Your task to perform on an android device: choose inbox layout in the gmail app Image 0: 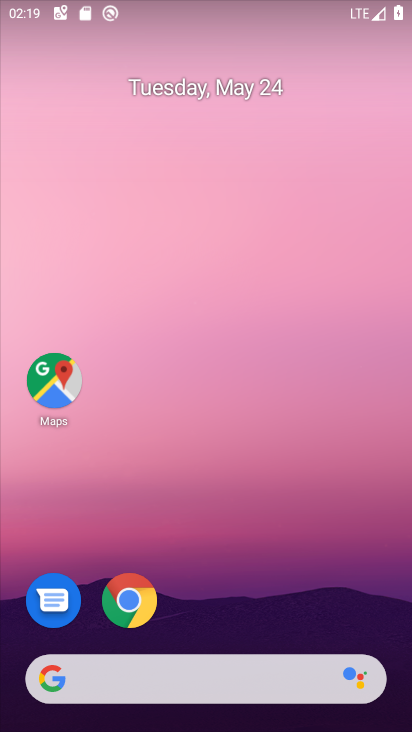
Step 0: drag from (290, 540) to (292, 277)
Your task to perform on an android device: choose inbox layout in the gmail app Image 1: 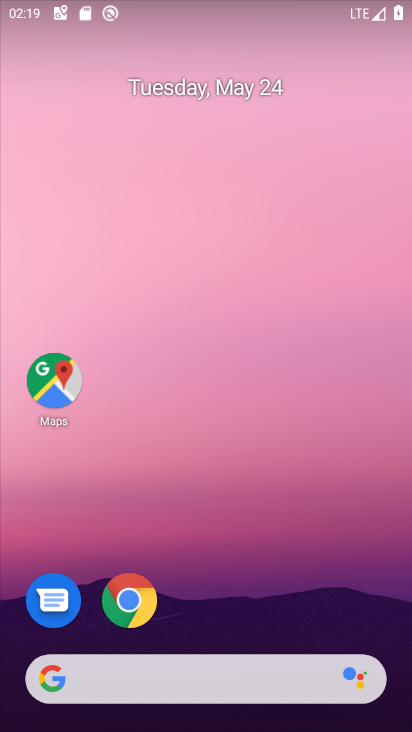
Step 1: drag from (345, 554) to (339, 6)
Your task to perform on an android device: choose inbox layout in the gmail app Image 2: 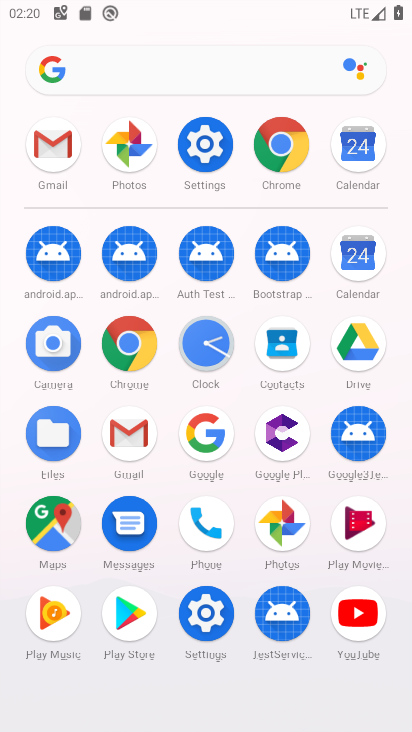
Step 2: click (132, 459)
Your task to perform on an android device: choose inbox layout in the gmail app Image 3: 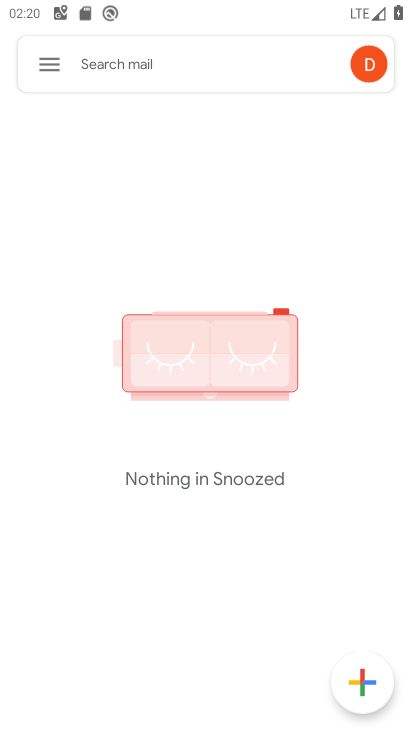
Step 3: click (52, 62)
Your task to perform on an android device: choose inbox layout in the gmail app Image 4: 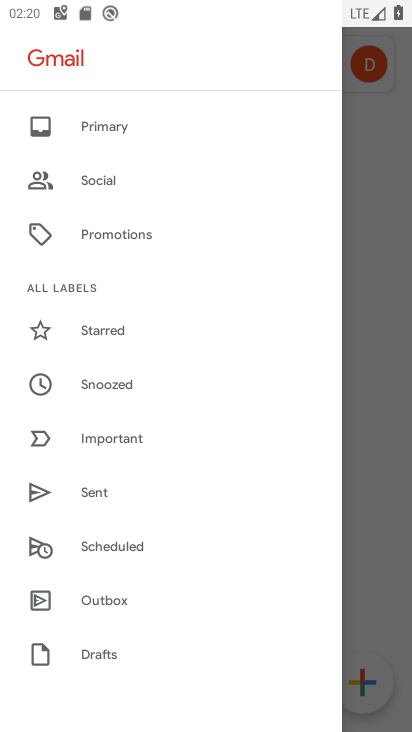
Step 4: drag from (141, 586) to (147, 271)
Your task to perform on an android device: choose inbox layout in the gmail app Image 5: 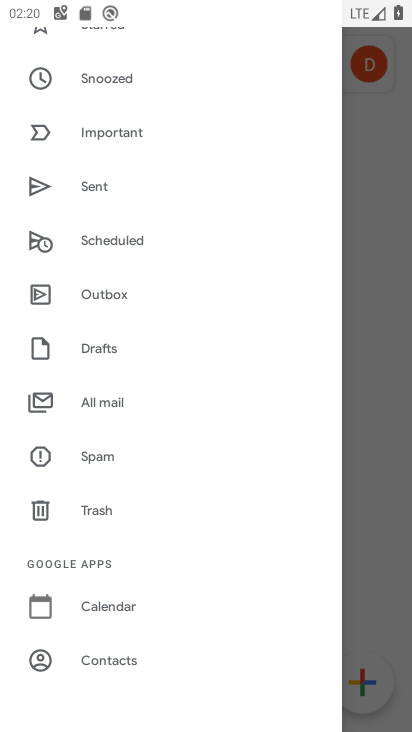
Step 5: drag from (111, 537) to (114, 189)
Your task to perform on an android device: choose inbox layout in the gmail app Image 6: 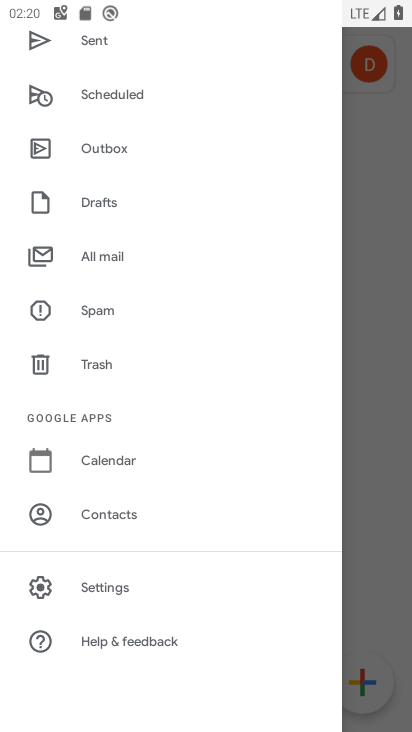
Step 6: drag from (307, 180) to (328, 551)
Your task to perform on an android device: choose inbox layout in the gmail app Image 7: 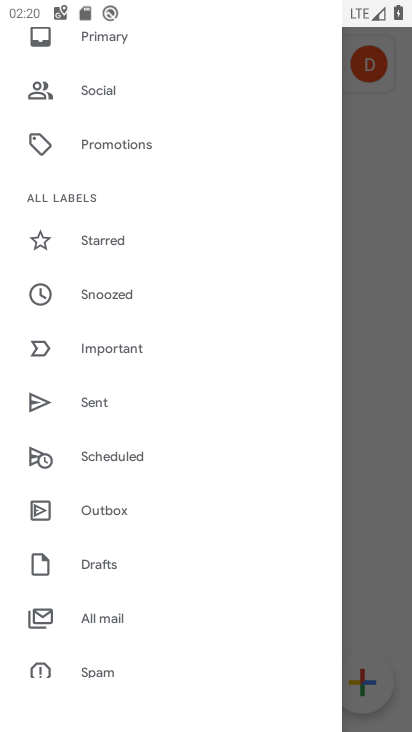
Step 7: drag from (245, 640) to (209, 255)
Your task to perform on an android device: choose inbox layout in the gmail app Image 8: 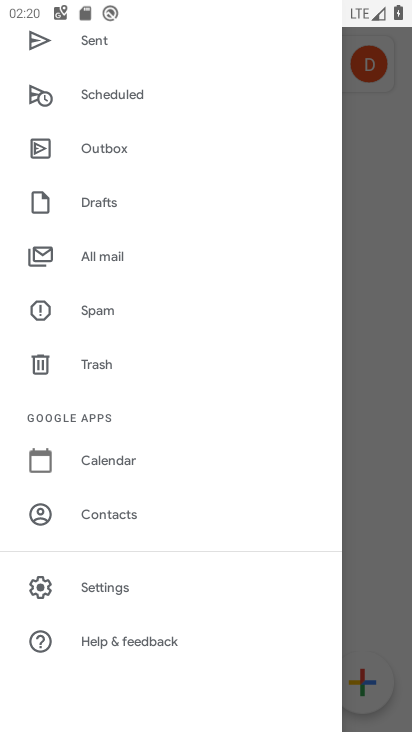
Step 8: click (185, 588)
Your task to perform on an android device: choose inbox layout in the gmail app Image 9: 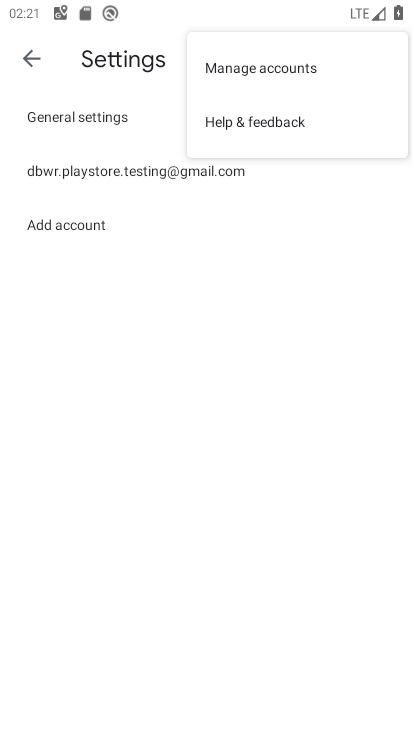
Step 9: task complete